Your task to perform on an android device: toggle notification dots Image 0: 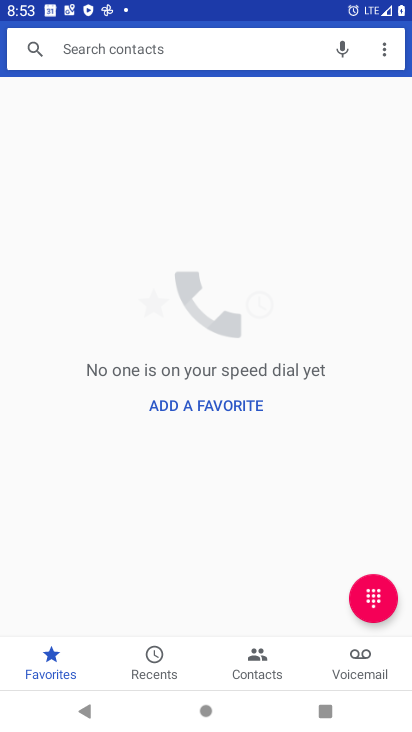
Step 0: press home button
Your task to perform on an android device: toggle notification dots Image 1: 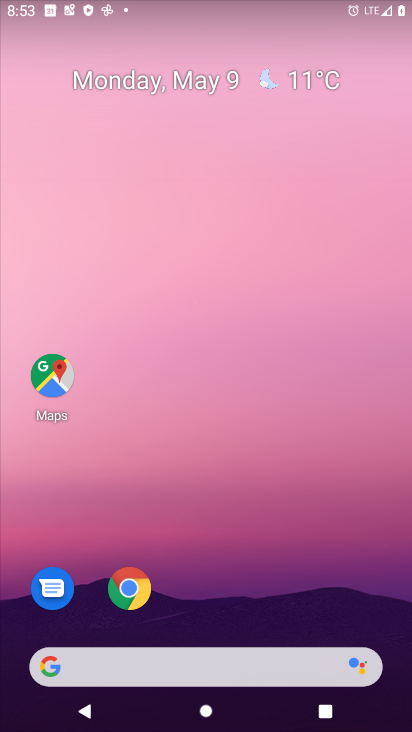
Step 1: drag from (306, 603) to (187, 74)
Your task to perform on an android device: toggle notification dots Image 2: 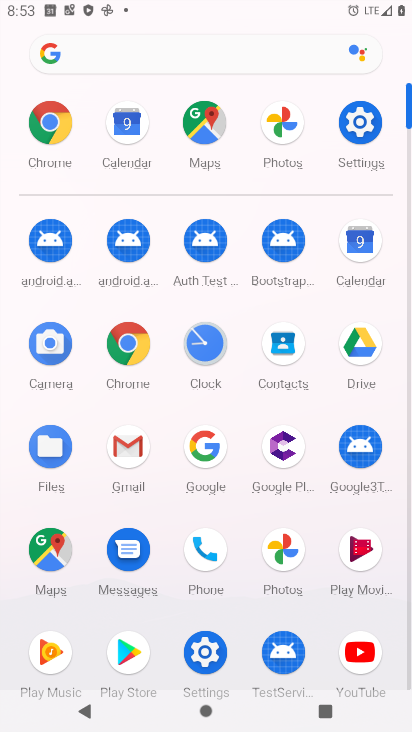
Step 2: click (360, 126)
Your task to perform on an android device: toggle notification dots Image 3: 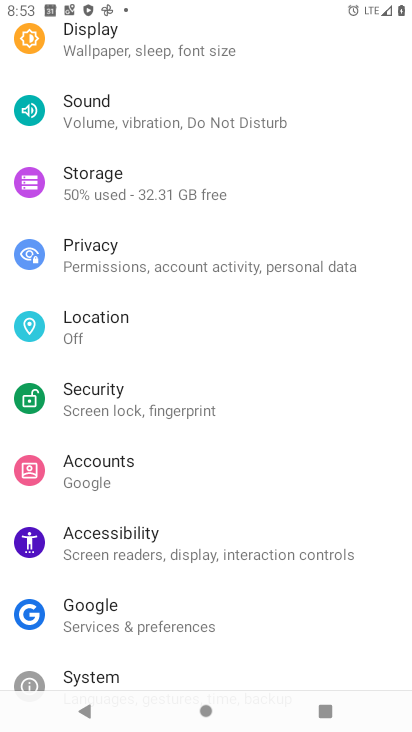
Step 3: drag from (211, 166) to (173, 605)
Your task to perform on an android device: toggle notification dots Image 4: 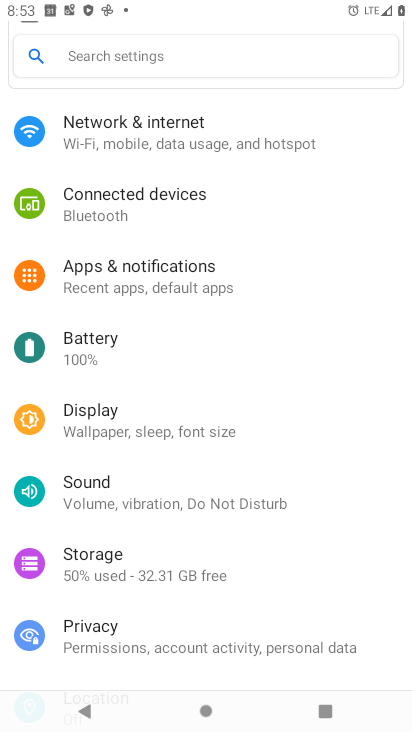
Step 4: click (178, 283)
Your task to perform on an android device: toggle notification dots Image 5: 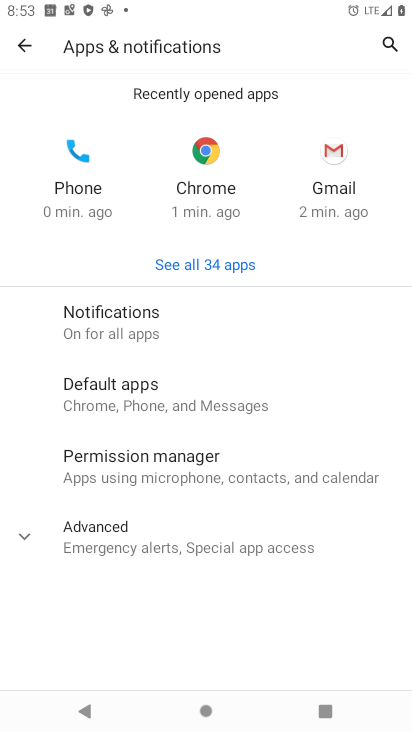
Step 5: click (171, 324)
Your task to perform on an android device: toggle notification dots Image 6: 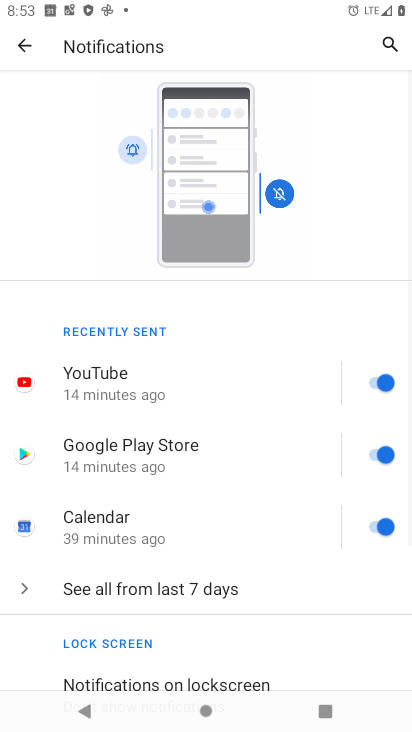
Step 6: drag from (61, 646) to (111, 302)
Your task to perform on an android device: toggle notification dots Image 7: 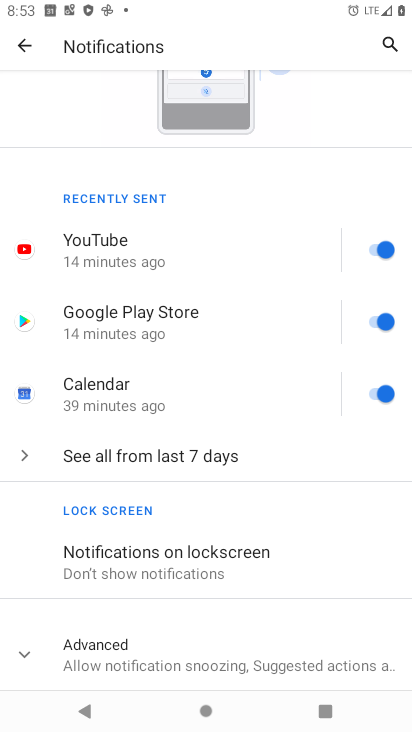
Step 7: click (31, 656)
Your task to perform on an android device: toggle notification dots Image 8: 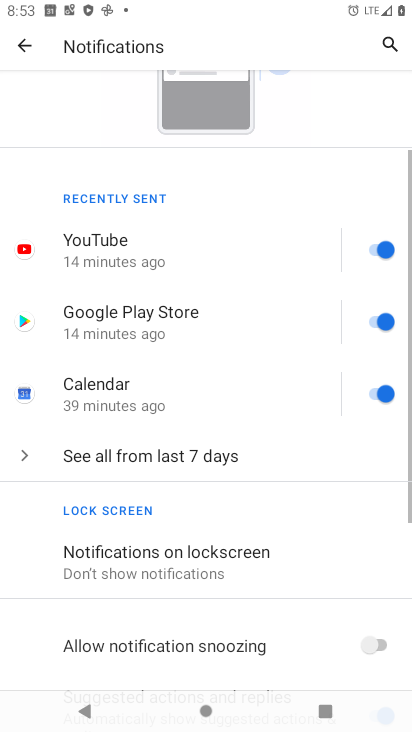
Step 8: drag from (87, 653) to (140, 203)
Your task to perform on an android device: toggle notification dots Image 9: 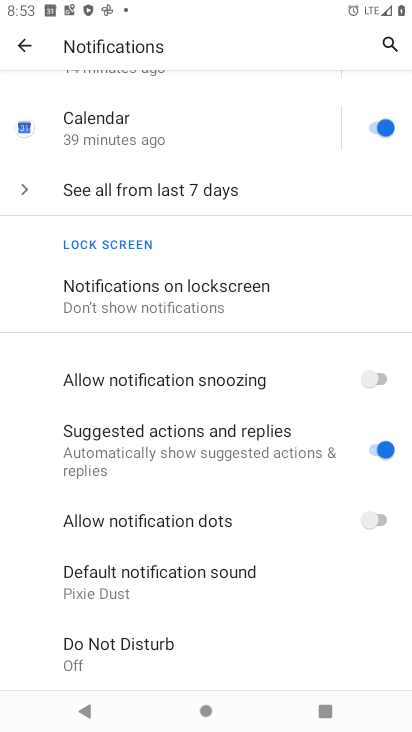
Step 9: click (235, 527)
Your task to perform on an android device: toggle notification dots Image 10: 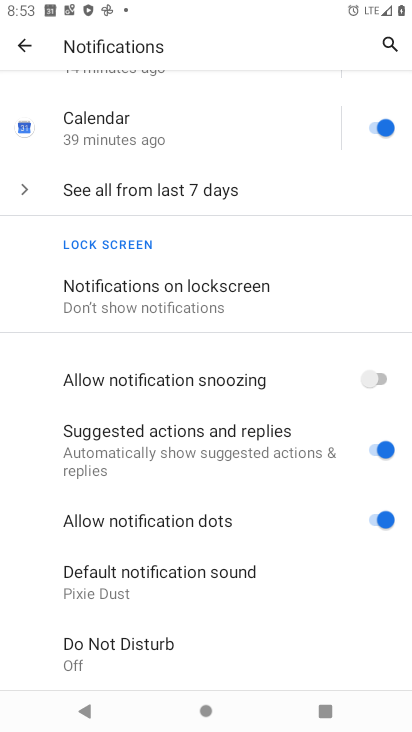
Step 10: task complete